Your task to perform on an android device: Open network settings Image 0: 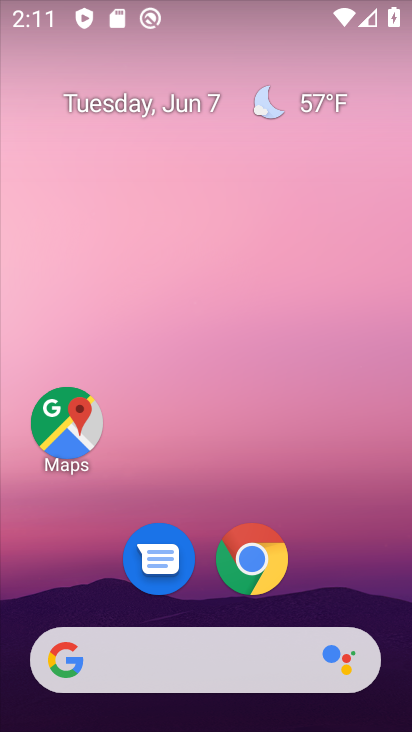
Step 0: drag from (334, 565) to (236, 34)
Your task to perform on an android device: Open network settings Image 1: 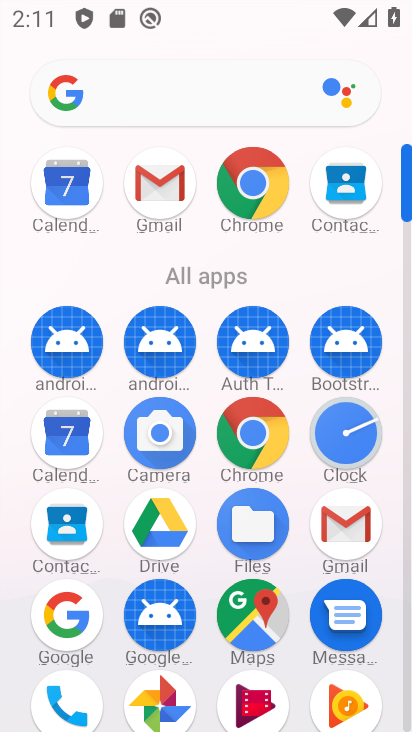
Step 1: drag from (19, 618) to (31, 250)
Your task to perform on an android device: Open network settings Image 2: 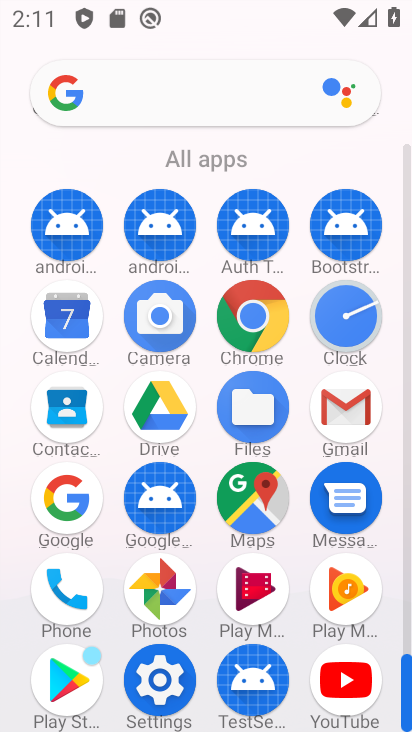
Step 2: click (158, 677)
Your task to perform on an android device: Open network settings Image 3: 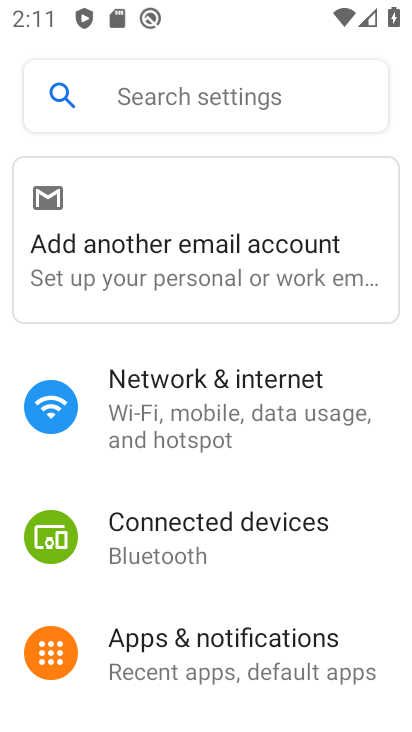
Step 3: click (246, 424)
Your task to perform on an android device: Open network settings Image 4: 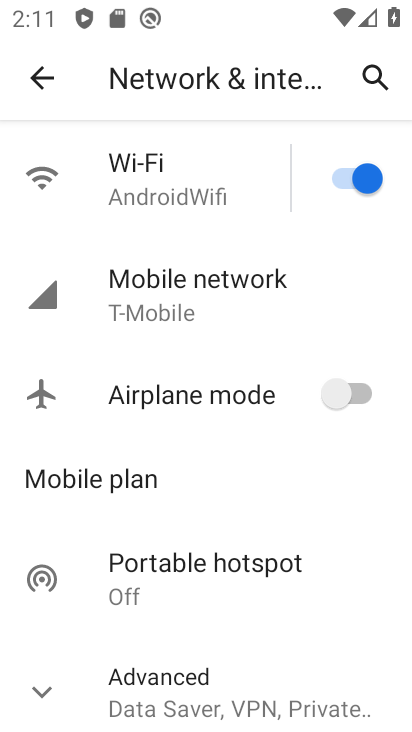
Step 4: click (34, 705)
Your task to perform on an android device: Open network settings Image 5: 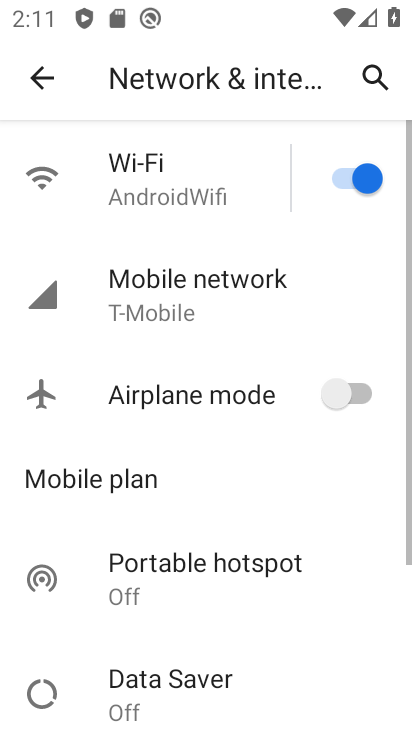
Step 5: task complete